Your task to perform on an android device: choose inbox layout in the gmail app Image 0: 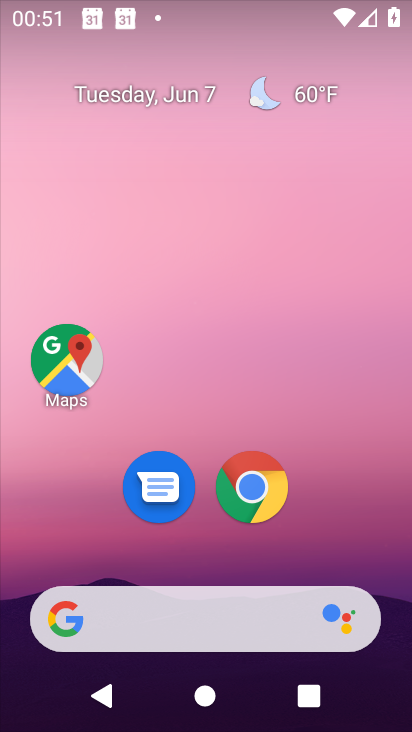
Step 0: drag from (384, 570) to (280, 197)
Your task to perform on an android device: choose inbox layout in the gmail app Image 1: 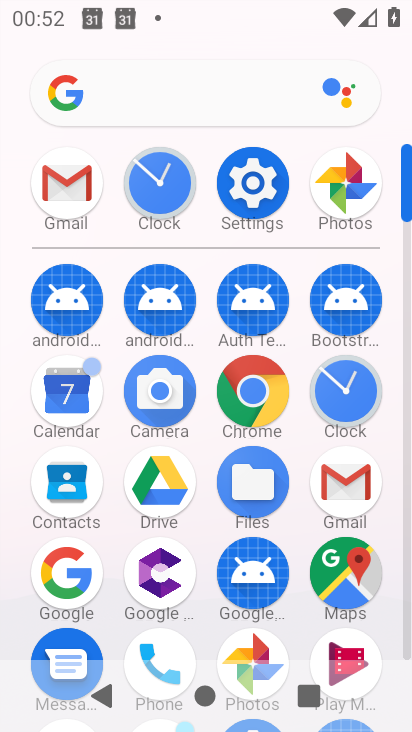
Step 1: click (56, 174)
Your task to perform on an android device: choose inbox layout in the gmail app Image 2: 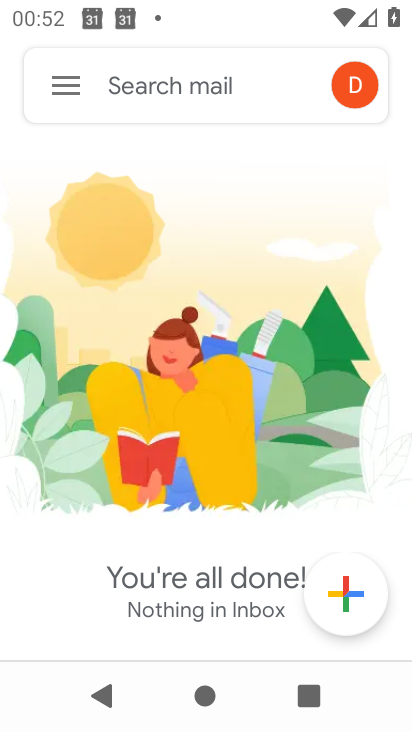
Step 2: click (67, 86)
Your task to perform on an android device: choose inbox layout in the gmail app Image 3: 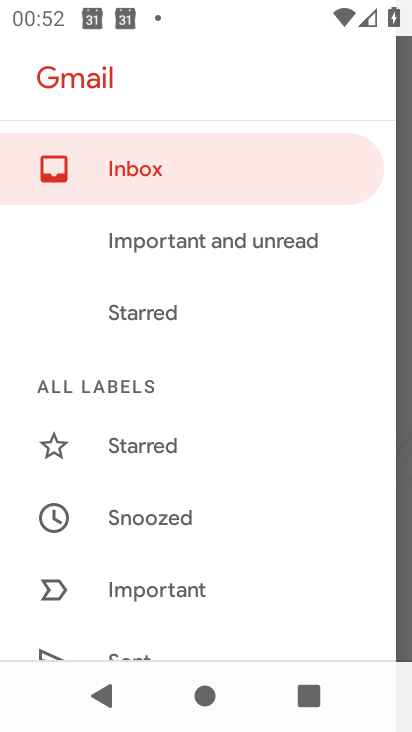
Step 3: drag from (247, 631) to (183, 300)
Your task to perform on an android device: choose inbox layout in the gmail app Image 4: 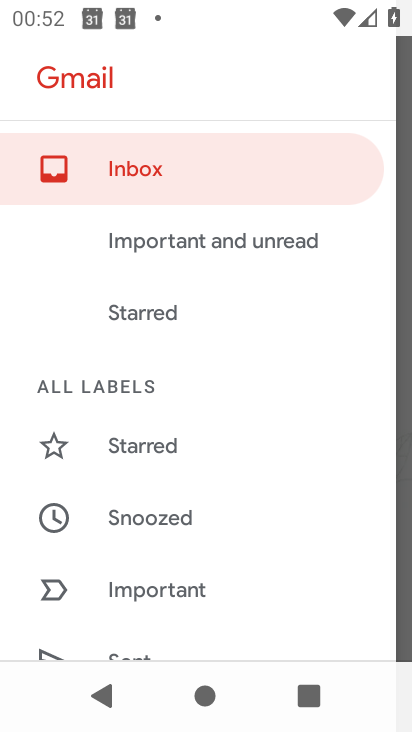
Step 4: drag from (137, 612) to (38, 42)
Your task to perform on an android device: choose inbox layout in the gmail app Image 5: 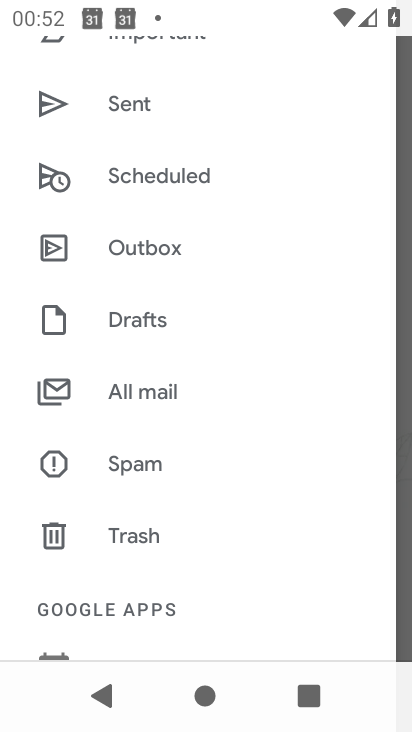
Step 5: drag from (193, 585) to (103, 149)
Your task to perform on an android device: choose inbox layout in the gmail app Image 6: 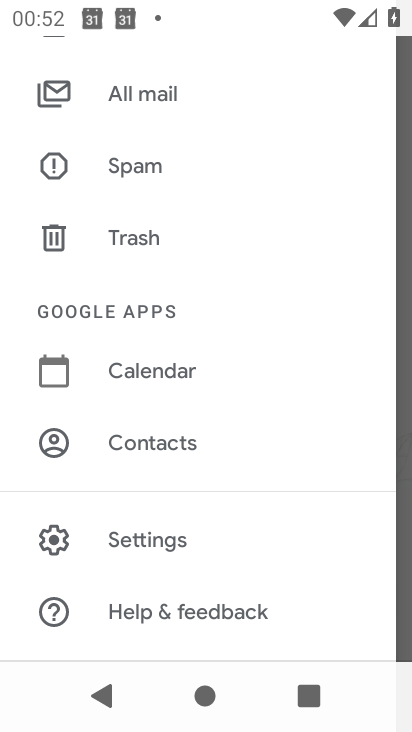
Step 6: click (154, 525)
Your task to perform on an android device: choose inbox layout in the gmail app Image 7: 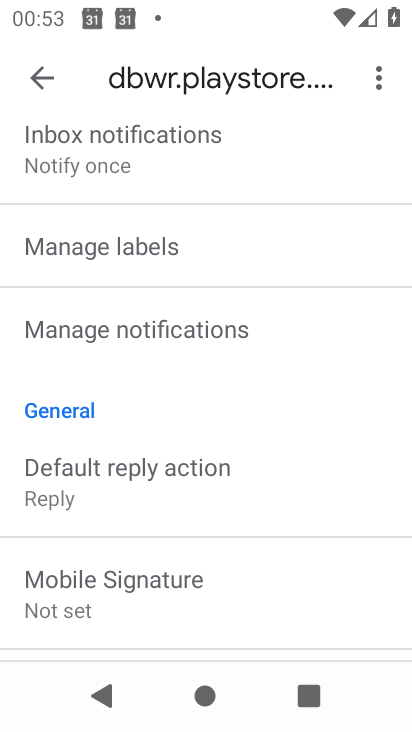
Step 7: drag from (170, 156) to (318, 715)
Your task to perform on an android device: choose inbox layout in the gmail app Image 8: 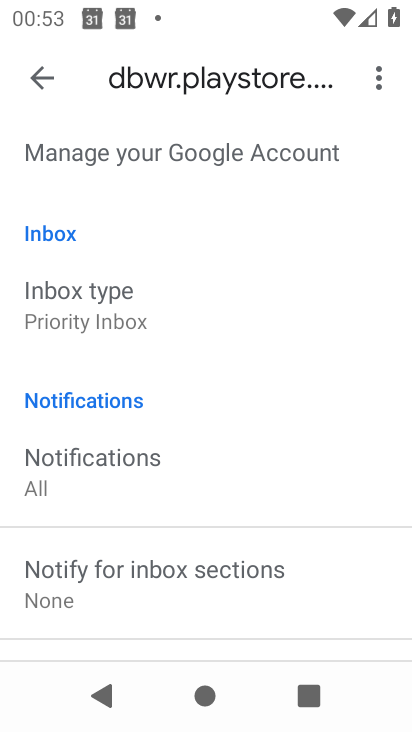
Step 8: click (141, 315)
Your task to perform on an android device: choose inbox layout in the gmail app Image 9: 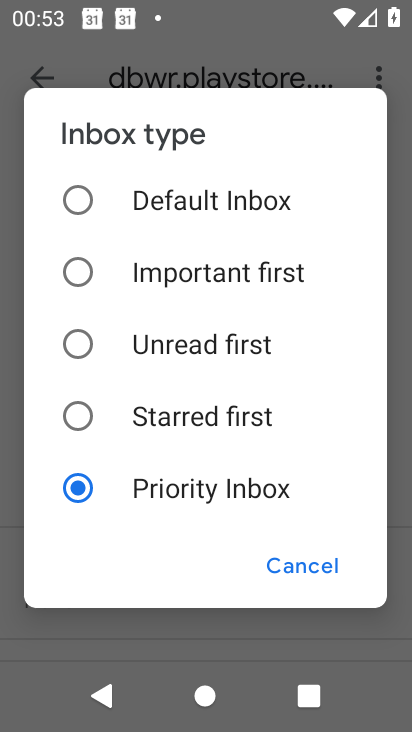
Step 9: click (158, 264)
Your task to perform on an android device: choose inbox layout in the gmail app Image 10: 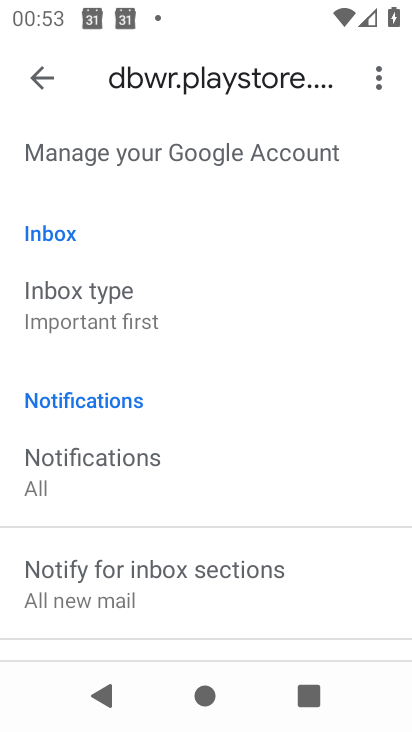
Step 10: task complete